Your task to perform on an android device: find photos in the google photos app Image 0: 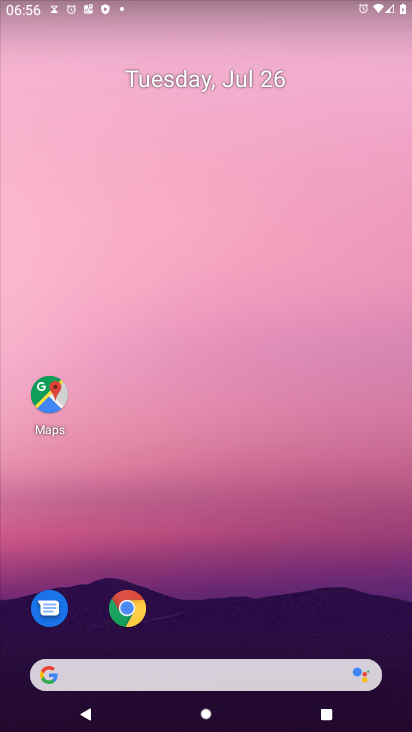
Step 0: drag from (236, 638) to (246, 270)
Your task to perform on an android device: find photos in the google photos app Image 1: 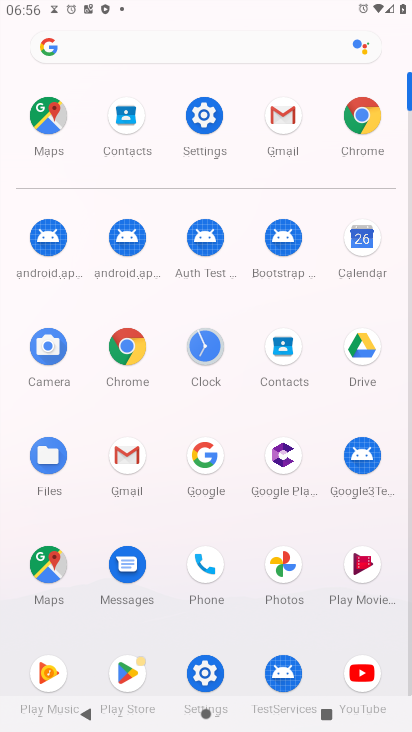
Step 1: click (281, 562)
Your task to perform on an android device: find photos in the google photos app Image 2: 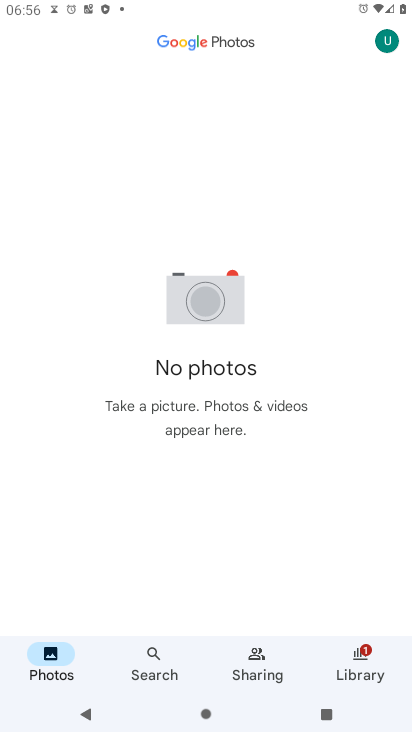
Step 2: task complete